Your task to perform on an android device: set default search engine in the chrome app Image 0: 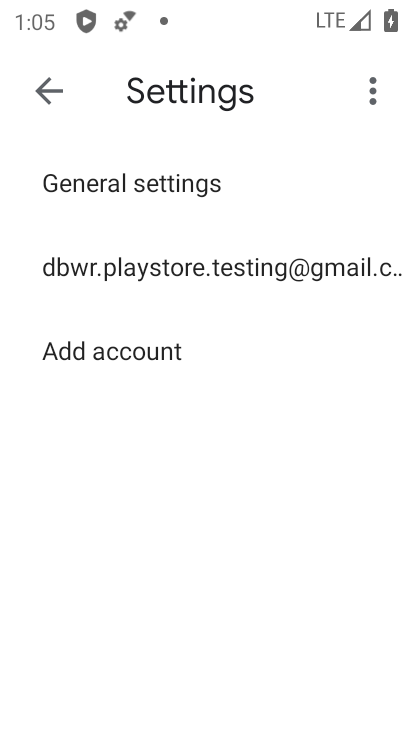
Step 0: press home button
Your task to perform on an android device: set default search engine in the chrome app Image 1: 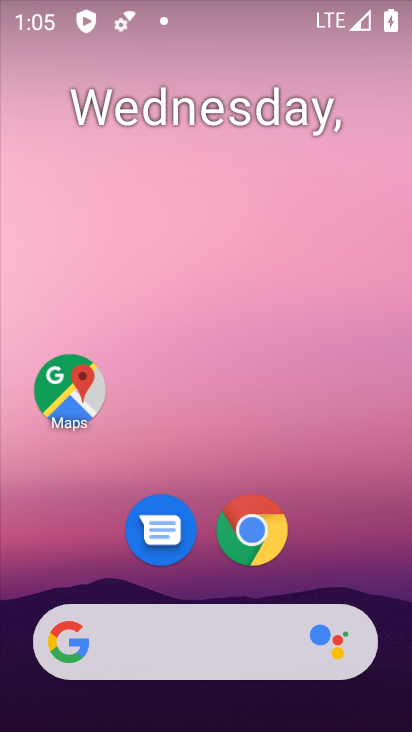
Step 1: drag from (377, 551) to (316, 174)
Your task to perform on an android device: set default search engine in the chrome app Image 2: 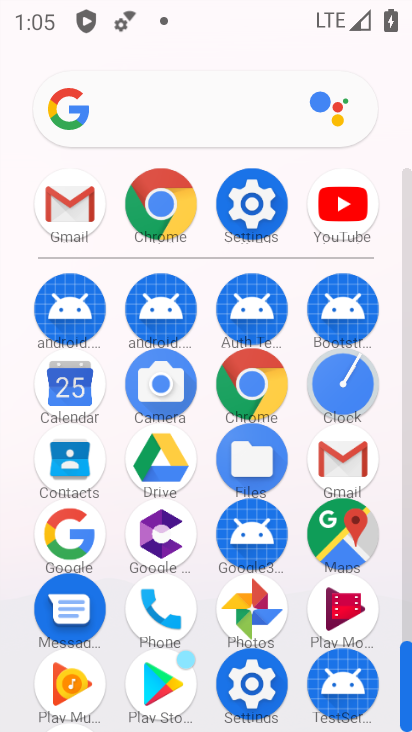
Step 2: click (239, 380)
Your task to perform on an android device: set default search engine in the chrome app Image 3: 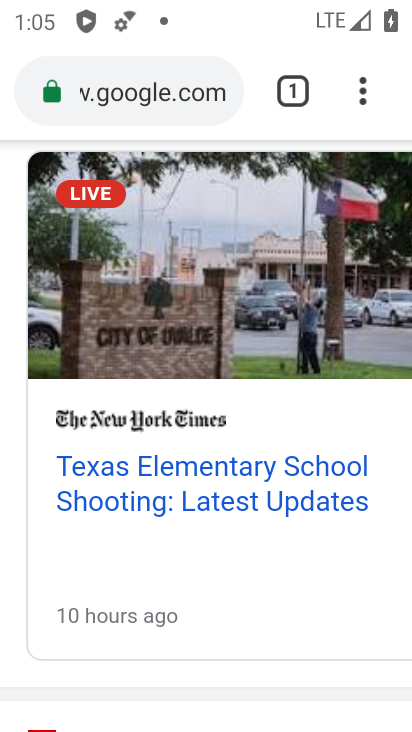
Step 3: drag from (386, 124) to (137, 569)
Your task to perform on an android device: set default search engine in the chrome app Image 4: 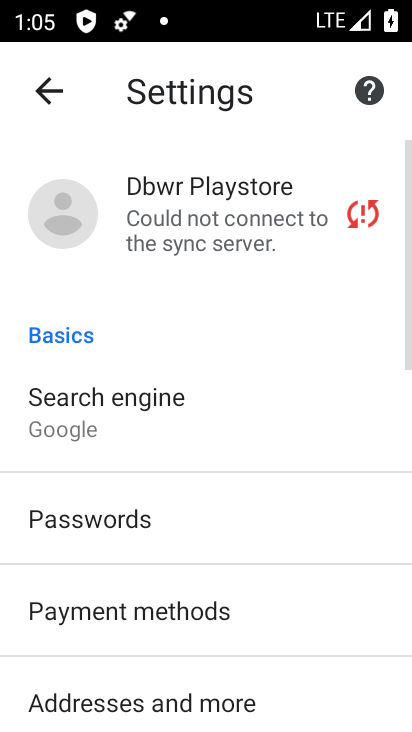
Step 4: click (143, 437)
Your task to perform on an android device: set default search engine in the chrome app Image 5: 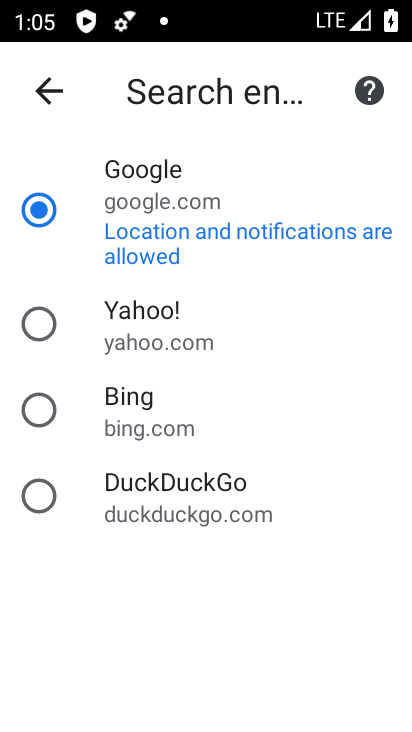
Step 5: click (48, 321)
Your task to perform on an android device: set default search engine in the chrome app Image 6: 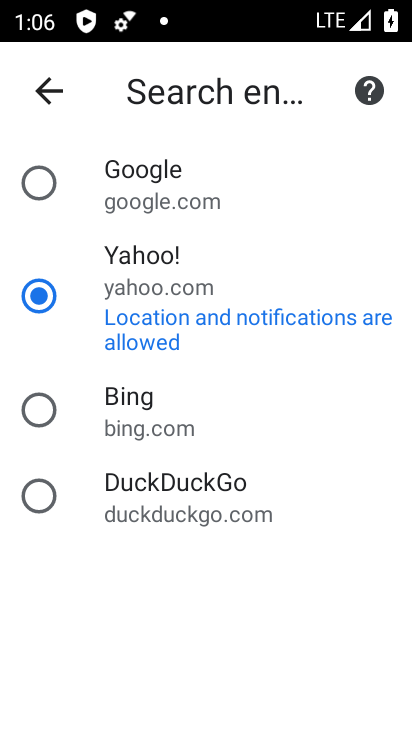
Step 6: task complete